Your task to perform on an android device: What's the weather today? Image 0: 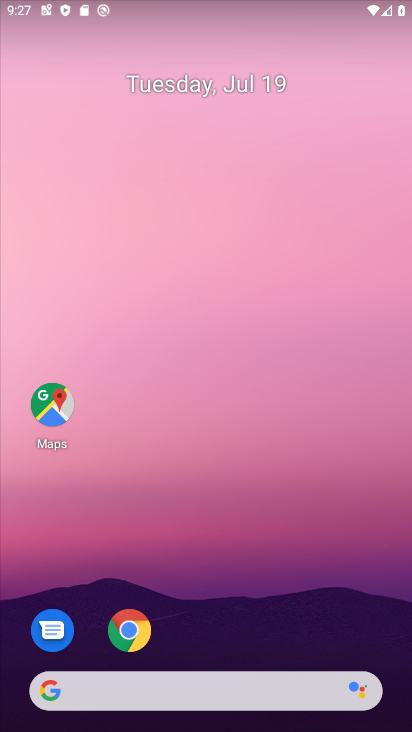
Step 0: drag from (205, 627) to (214, 56)
Your task to perform on an android device: What's the weather today? Image 1: 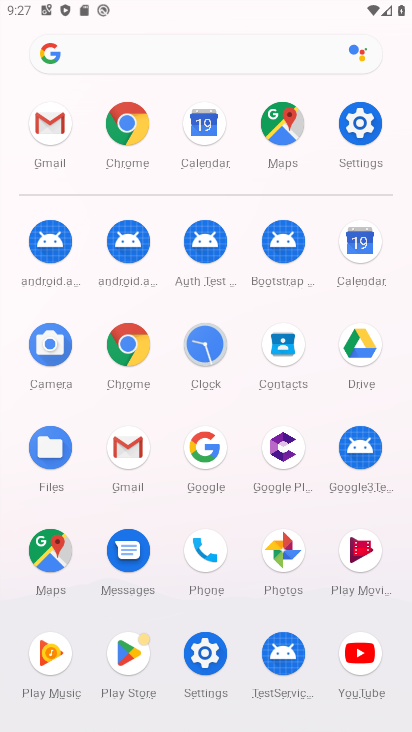
Step 1: click (208, 450)
Your task to perform on an android device: What's the weather today? Image 2: 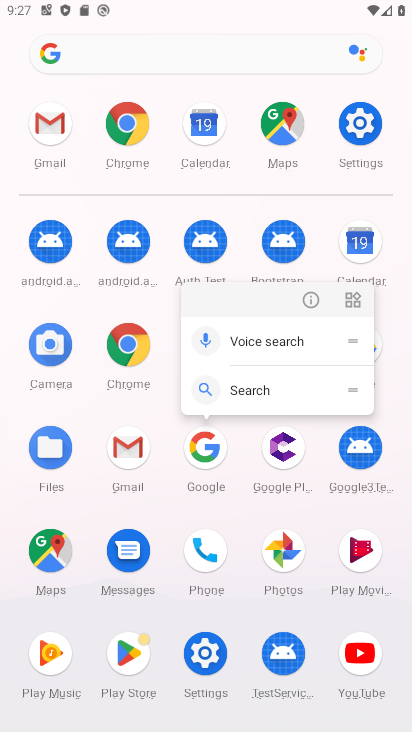
Step 2: click (204, 448)
Your task to perform on an android device: What's the weather today? Image 3: 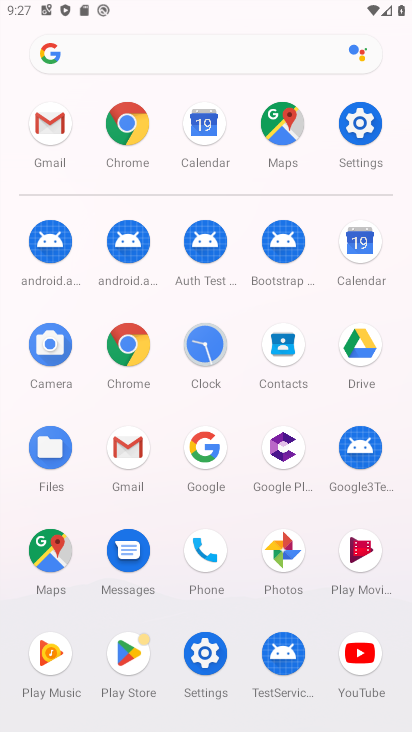
Step 3: click (204, 446)
Your task to perform on an android device: What's the weather today? Image 4: 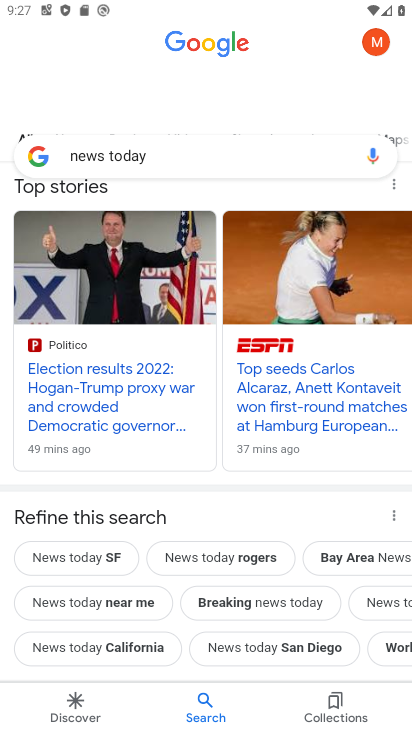
Step 4: click (202, 146)
Your task to perform on an android device: What's the weather today? Image 5: 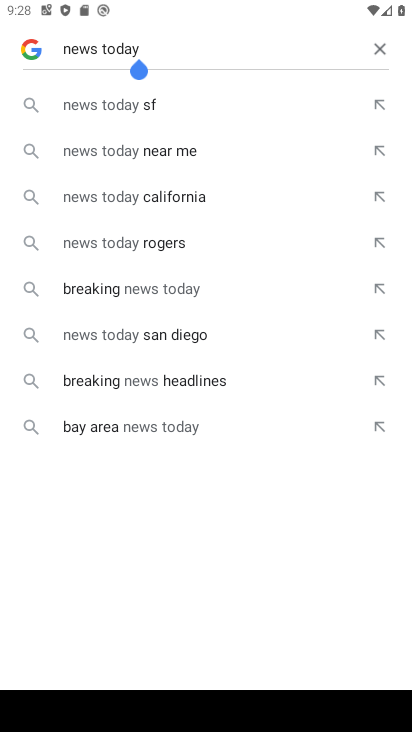
Step 5: click (380, 58)
Your task to perform on an android device: What's the weather today? Image 6: 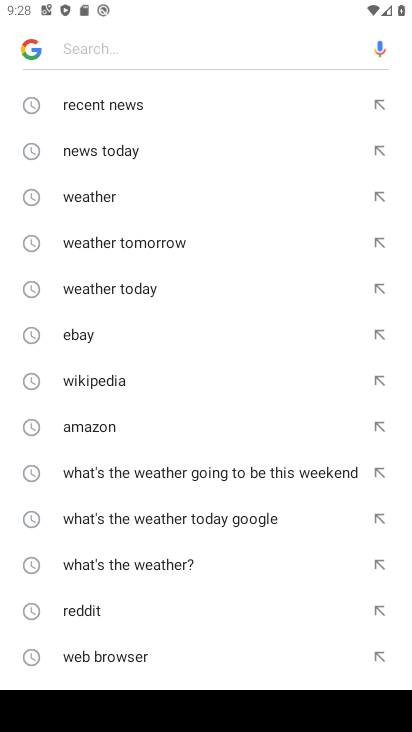
Step 6: type "weather today"
Your task to perform on an android device: What's the weather today? Image 7: 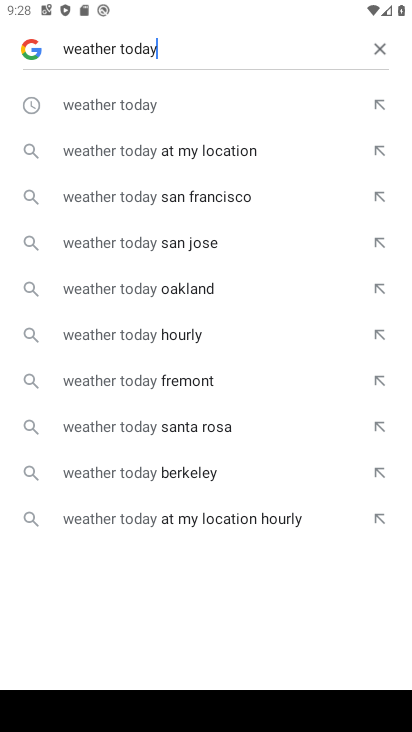
Step 7: click (135, 109)
Your task to perform on an android device: What's the weather today? Image 8: 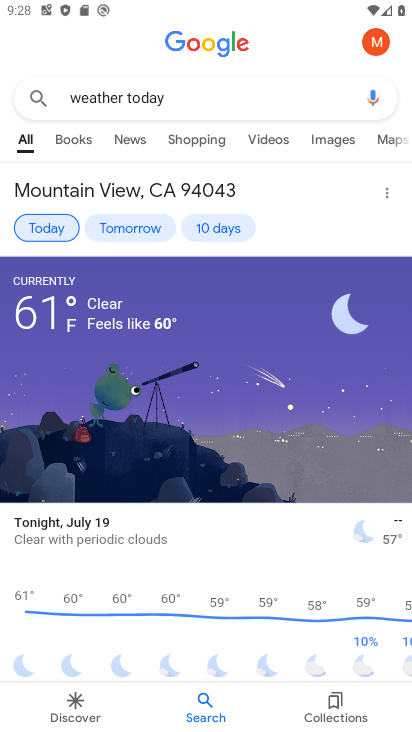
Step 8: task complete